Your task to perform on an android device: set default search engine in the chrome app Image 0: 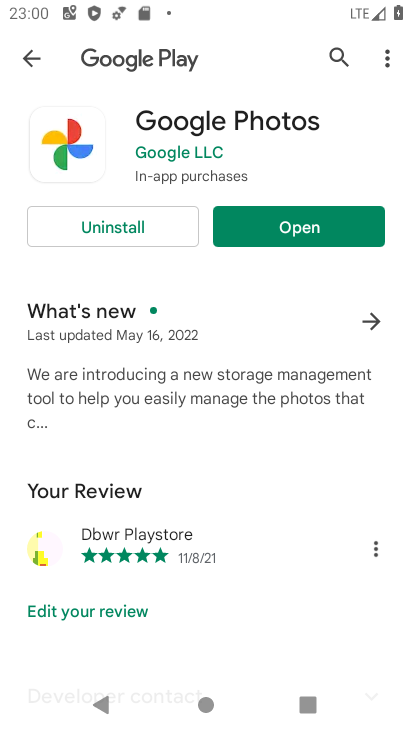
Step 0: press home button
Your task to perform on an android device: set default search engine in the chrome app Image 1: 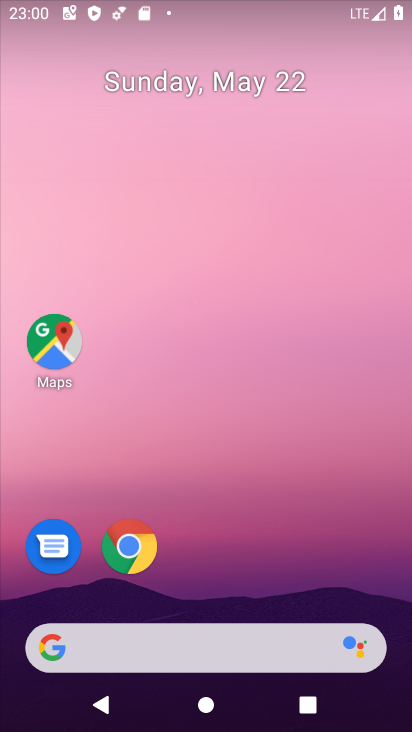
Step 1: click (118, 541)
Your task to perform on an android device: set default search engine in the chrome app Image 2: 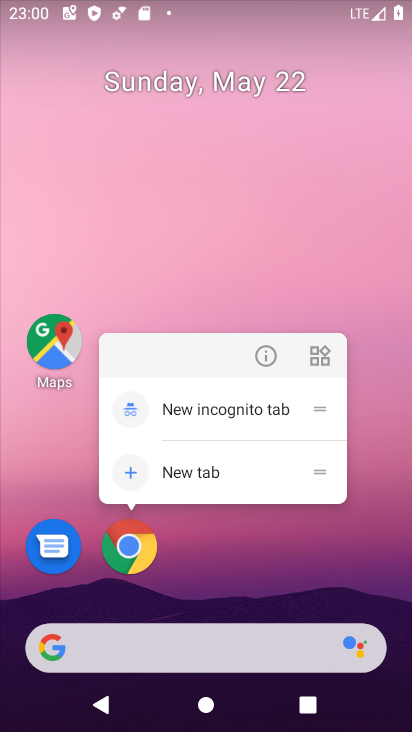
Step 2: click (260, 359)
Your task to perform on an android device: set default search engine in the chrome app Image 3: 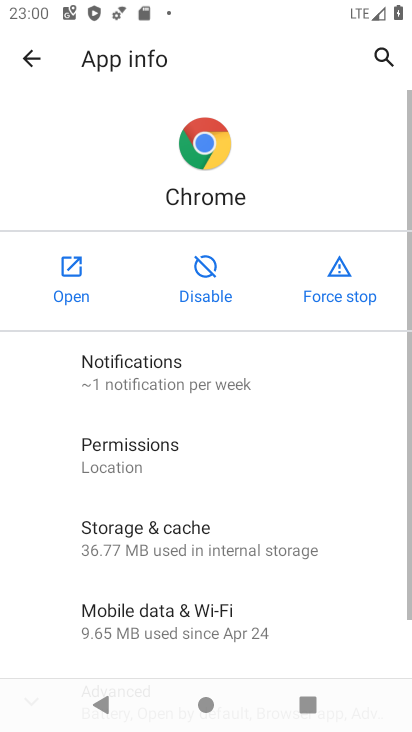
Step 3: click (67, 282)
Your task to perform on an android device: set default search engine in the chrome app Image 4: 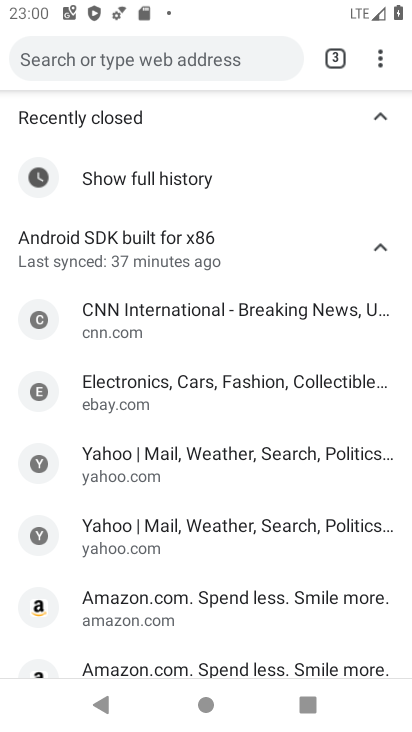
Step 4: click (384, 56)
Your task to perform on an android device: set default search engine in the chrome app Image 5: 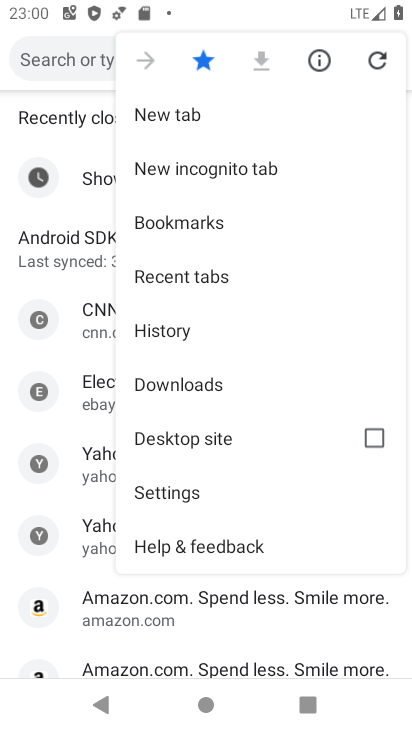
Step 5: drag from (220, 481) to (280, 70)
Your task to perform on an android device: set default search engine in the chrome app Image 6: 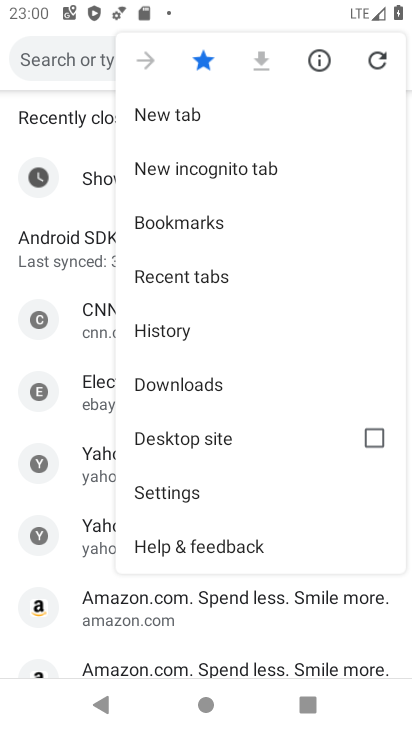
Step 6: click (177, 485)
Your task to perform on an android device: set default search engine in the chrome app Image 7: 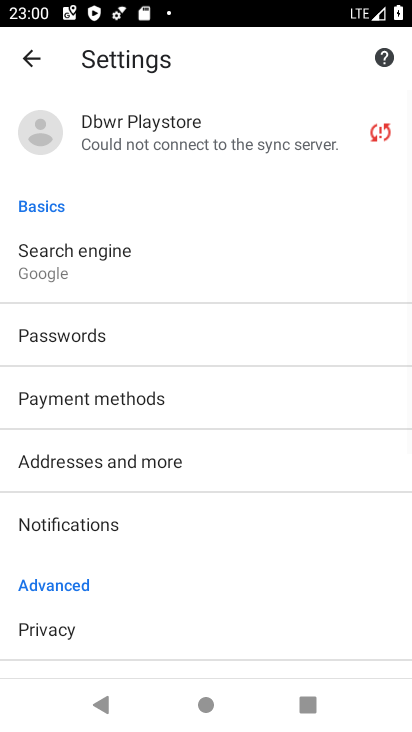
Step 7: click (124, 267)
Your task to perform on an android device: set default search engine in the chrome app Image 8: 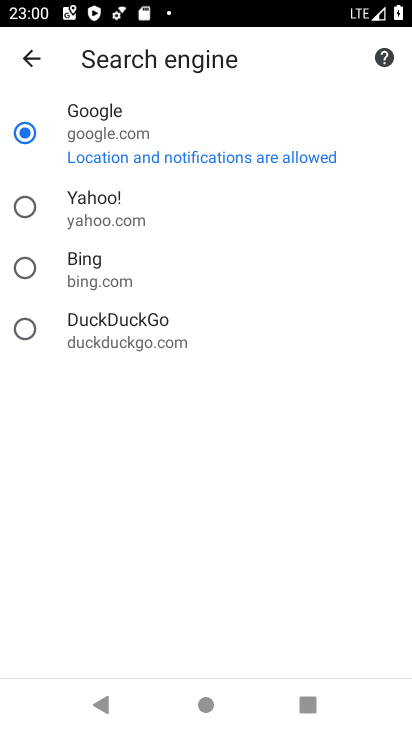
Step 8: task complete